Your task to perform on an android device: Open Yahoo.com Image 0: 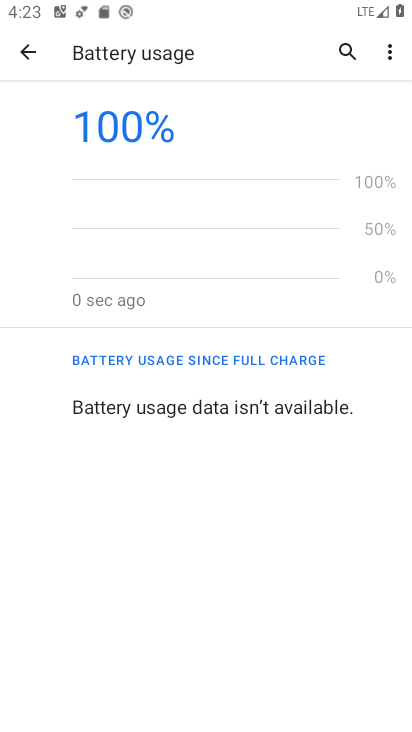
Step 0: press home button
Your task to perform on an android device: Open Yahoo.com Image 1: 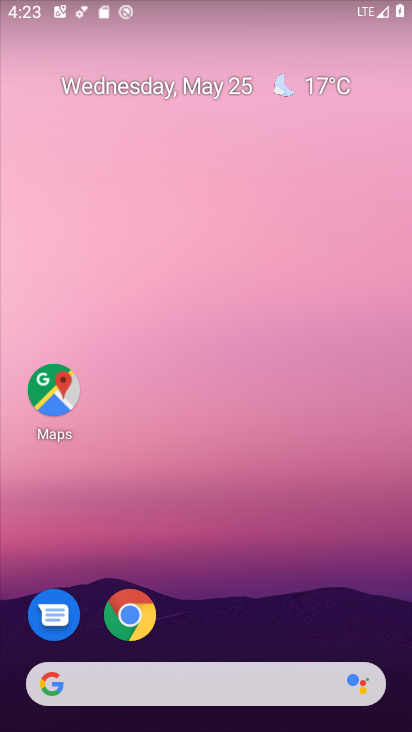
Step 1: click (142, 613)
Your task to perform on an android device: Open Yahoo.com Image 2: 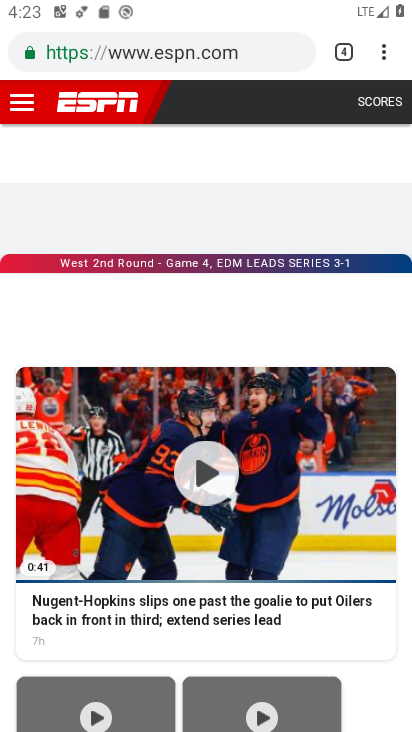
Step 2: click (350, 56)
Your task to perform on an android device: Open Yahoo.com Image 3: 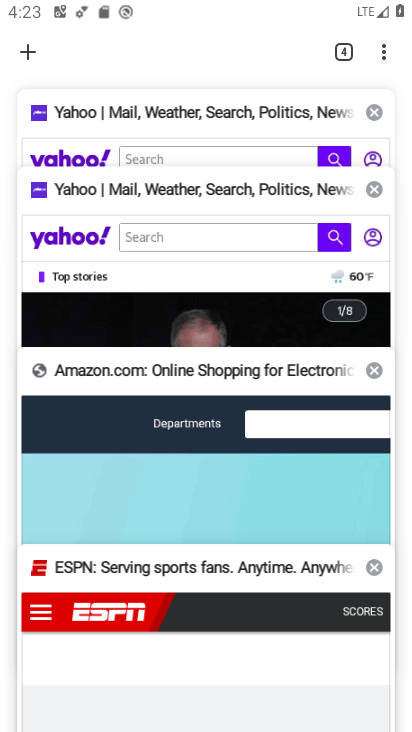
Step 3: click (63, 151)
Your task to perform on an android device: Open Yahoo.com Image 4: 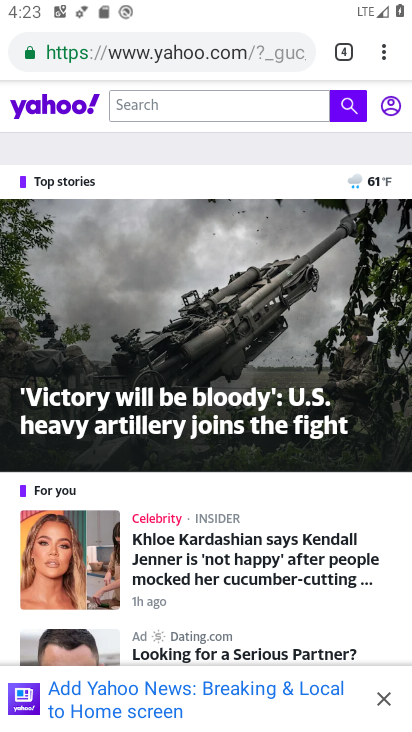
Step 4: task complete